Your task to perform on an android device: check data usage Image 0: 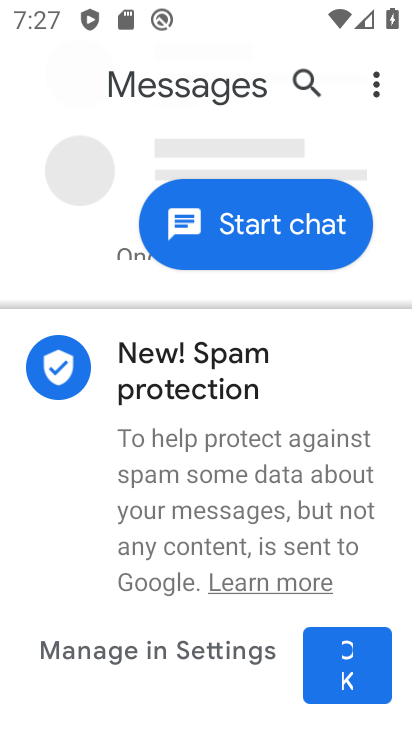
Step 0: press home button
Your task to perform on an android device: check data usage Image 1: 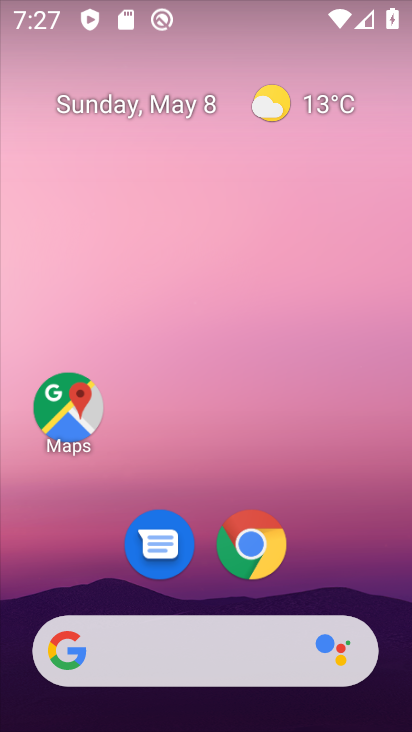
Step 1: drag from (349, 560) to (234, 32)
Your task to perform on an android device: check data usage Image 2: 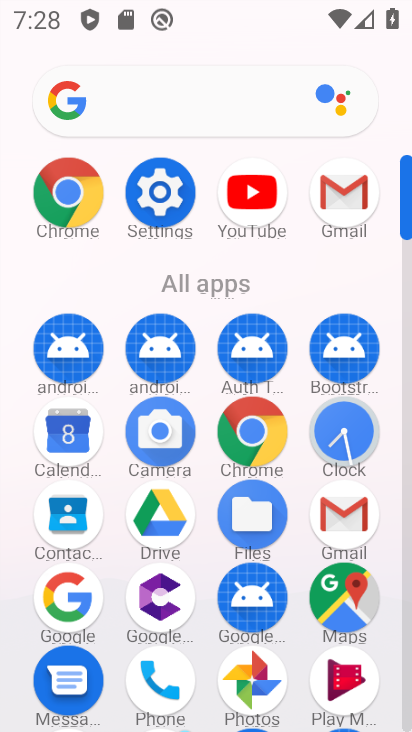
Step 2: click (155, 199)
Your task to perform on an android device: check data usage Image 3: 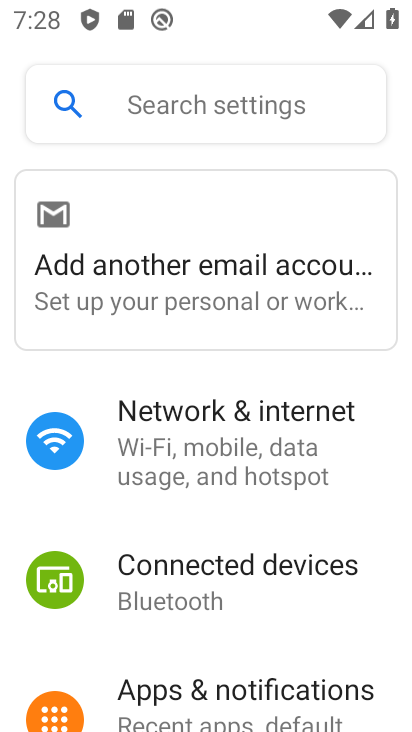
Step 3: click (212, 433)
Your task to perform on an android device: check data usage Image 4: 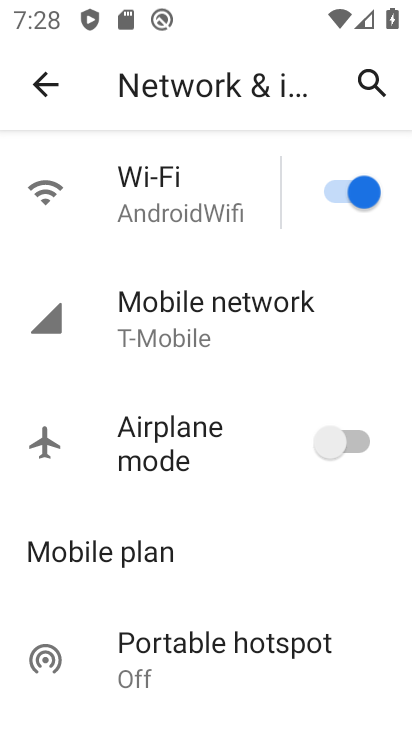
Step 4: click (183, 303)
Your task to perform on an android device: check data usage Image 5: 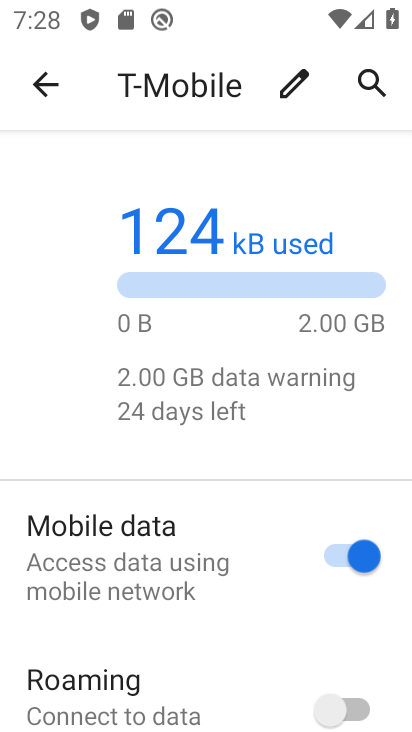
Step 5: task complete